Your task to perform on an android device: turn on sleep mode Image 0: 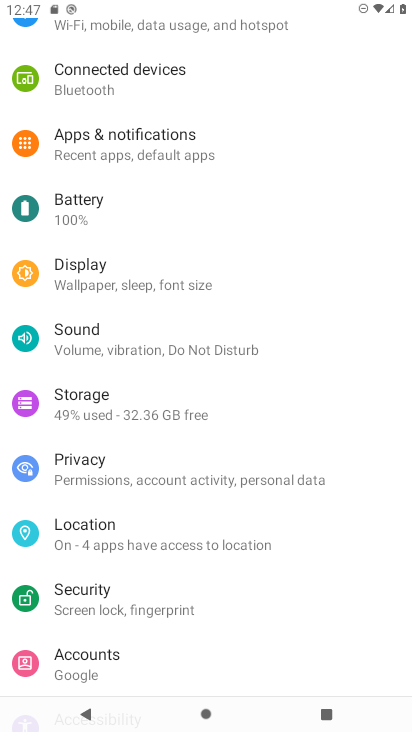
Step 0: click (184, 266)
Your task to perform on an android device: turn on sleep mode Image 1: 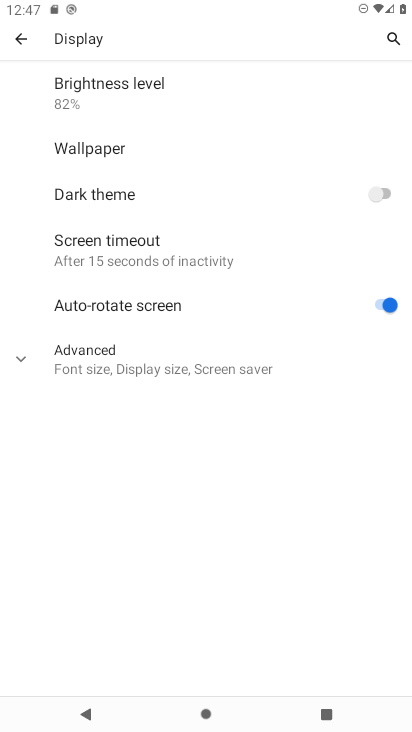
Step 1: click (183, 261)
Your task to perform on an android device: turn on sleep mode Image 2: 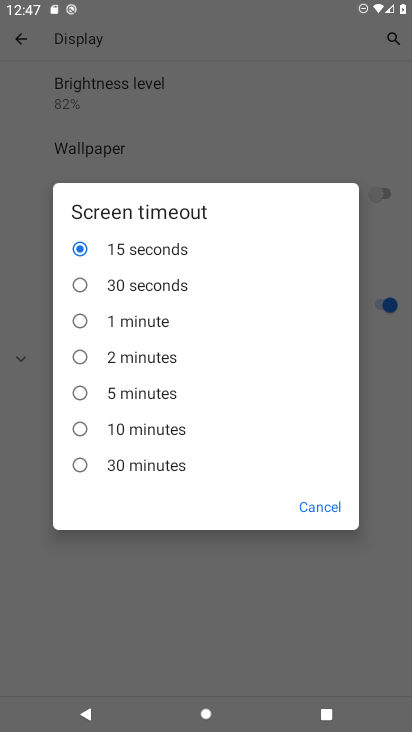
Step 2: click (171, 296)
Your task to perform on an android device: turn on sleep mode Image 3: 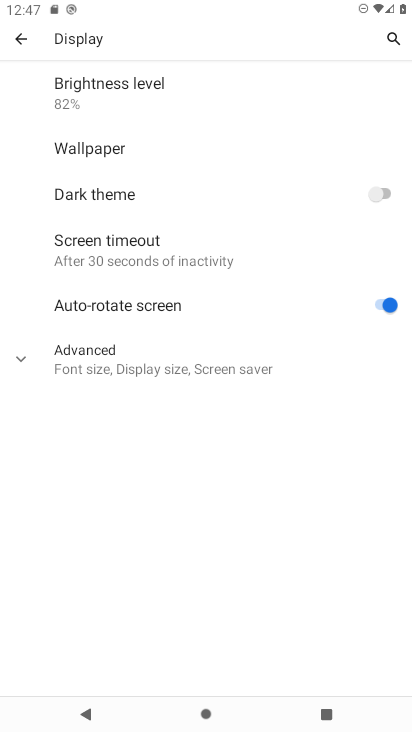
Step 3: task complete